Your task to perform on an android device: change the clock display to show seconds Image 0: 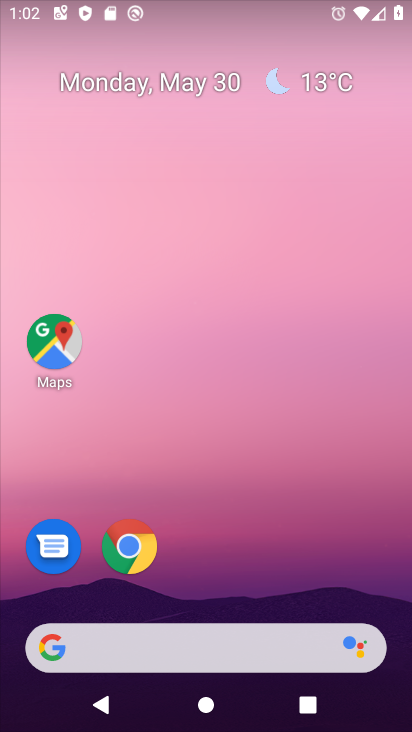
Step 0: press home button
Your task to perform on an android device: change the clock display to show seconds Image 1: 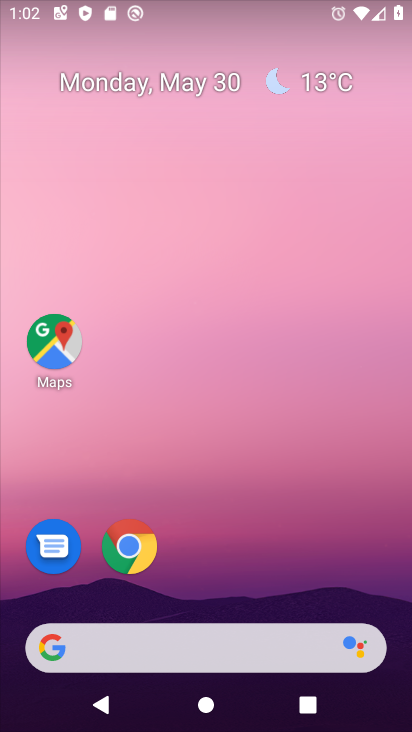
Step 1: drag from (333, 553) to (320, 168)
Your task to perform on an android device: change the clock display to show seconds Image 2: 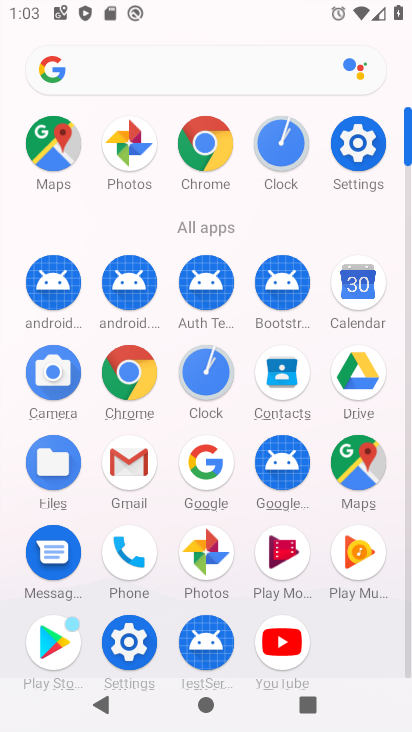
Step 2: click (292, 162)
Your task to perform on an android device: change the clock display to show seconds Image 3: 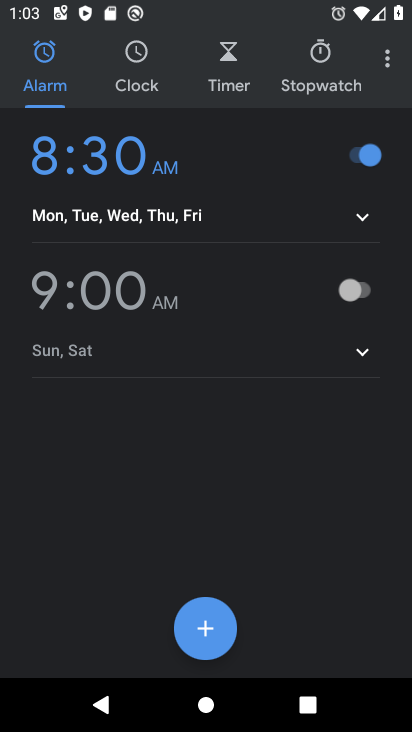
Step 3: click (390, 68)
Your task to perform on an android device: change the clock display to show seconds Image 4: 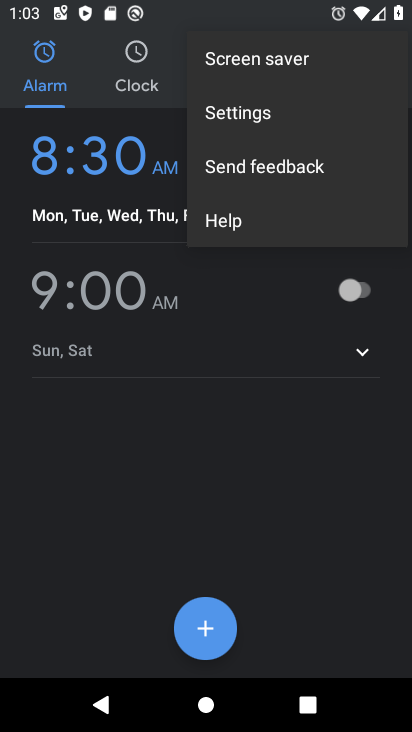
Step 4: click (248, 115)
Your task to perform on an android device: change the clock display to show seconds Image 5: 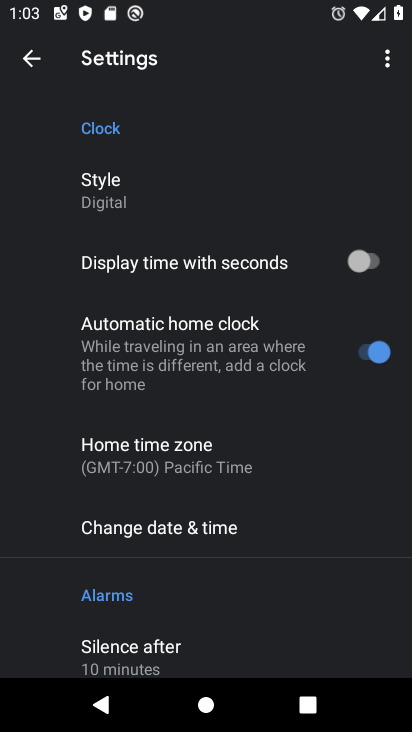
Step 5: click (365, 257)
Your task to perform on an android device: change the clock display to show seconds Image 6: 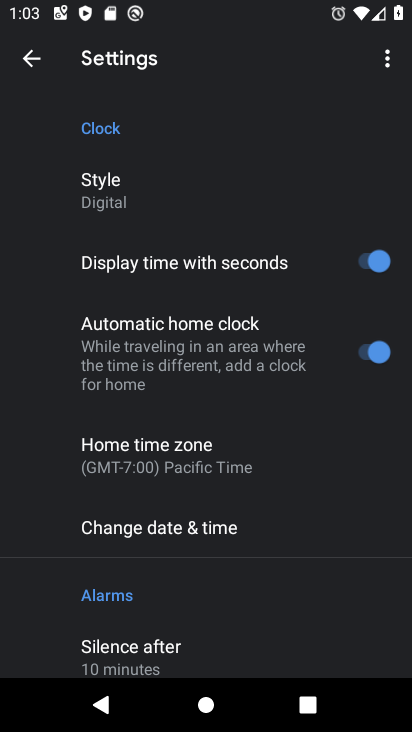
Step 6: task complete